Your task to perform on an android device: read, delete, or share a saved page in the chrome app Image 0: 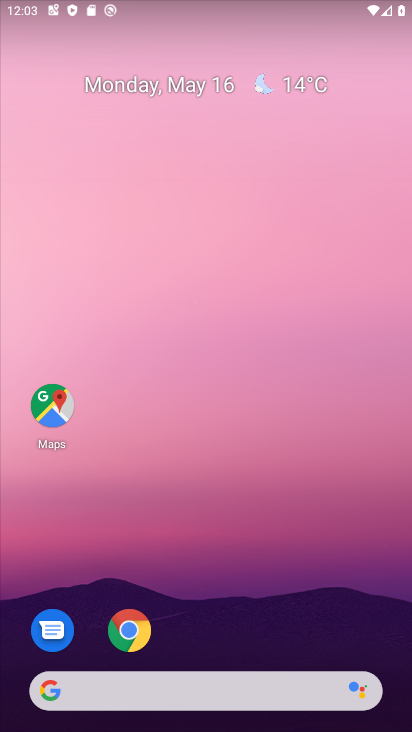
Step 0: drag from (323, 634) to (264, 25)
Your task to perform on an android device: read, delete, or share a saved page in the chrome app Image 1: 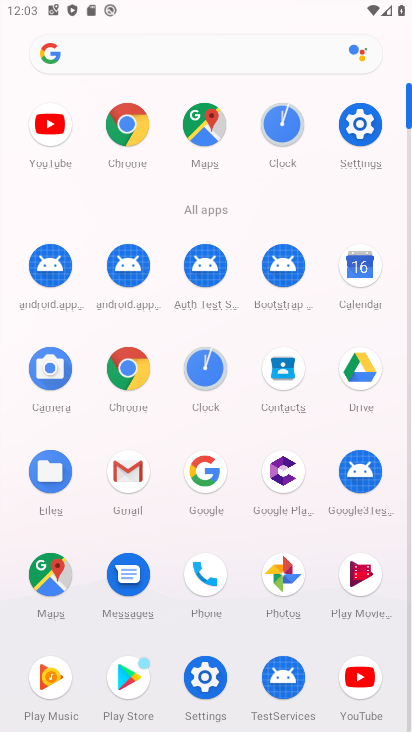
Step 1: click (129, 106)
Your task to perform on an android device: read, delete, or share a saved page in the chrome app Image 2: 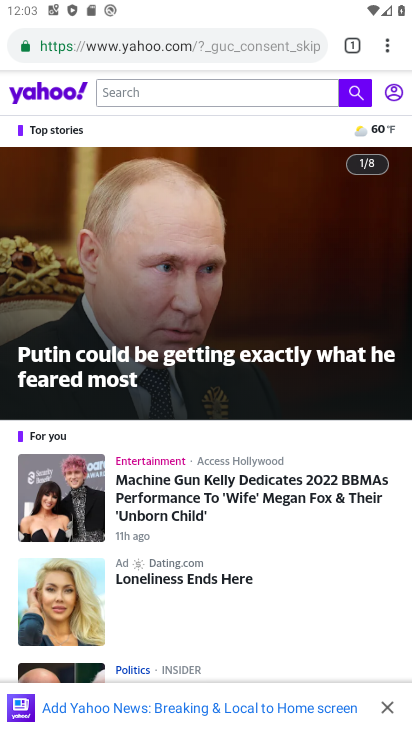
Step 2: click (400, 41)
Your task to perform on an android device: read, delete, or share a saved page in the chrome app Image 3: 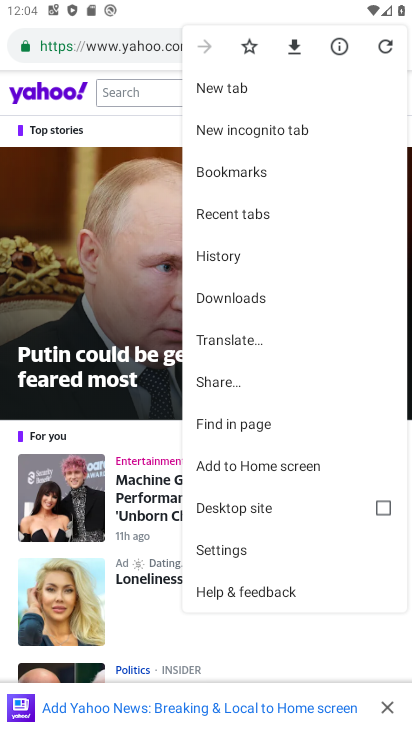
Step 3: click (294, 304)
Your task to perform on an android device: read, delete, or share a saved page in the chrome app Image 4: 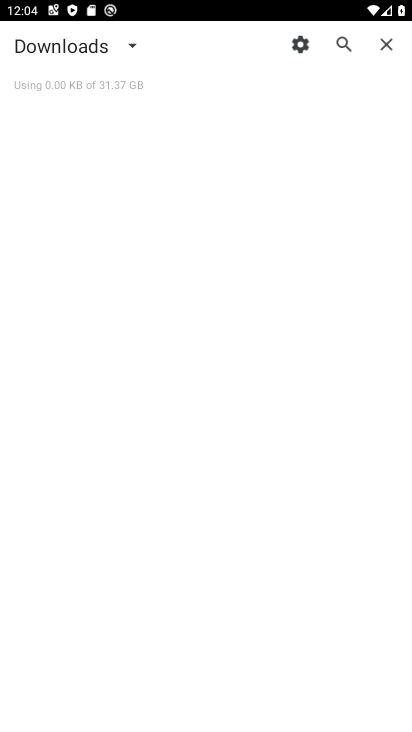
Step 4: click (133, 54)
Your task to perform on an android device: read, delete, or share a saved page in the chrome app Image 5: 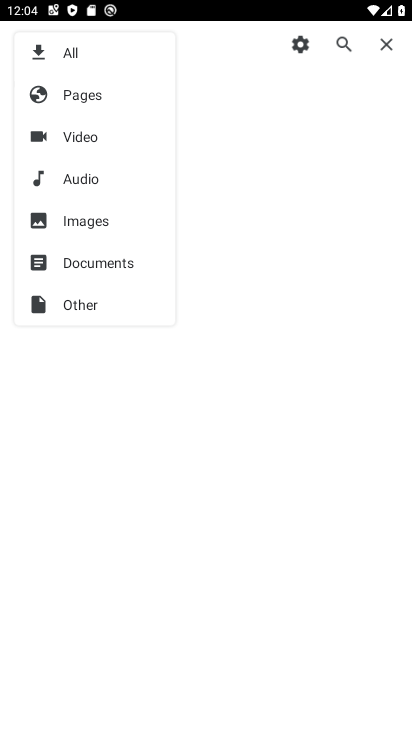
Step 5: click (109, 94)
Your task to perform on an android device: read, delete, or share a saved page in the chrome app Image 6: 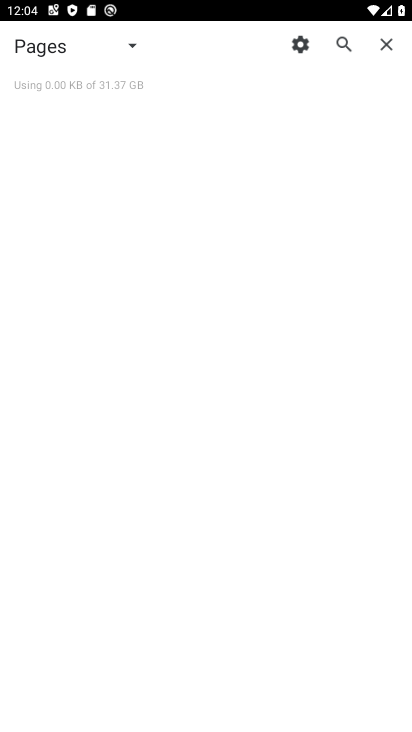
Step 6: task complete